Your task to perform on an android device: Open wifi settings Image 0: 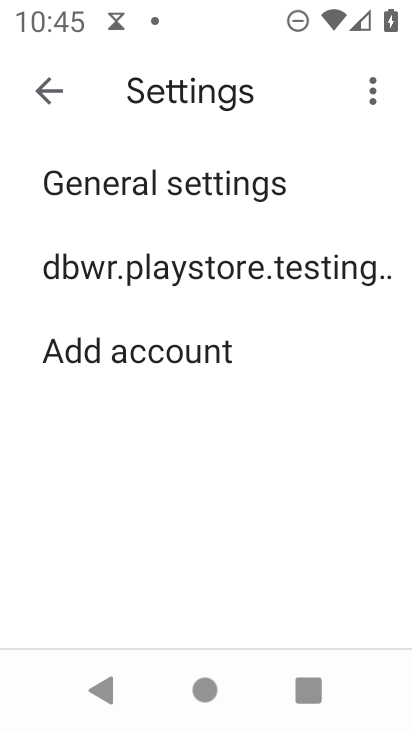
Step 0: press home button
Your task to perform on an android device: Open wifi settings Image 1: 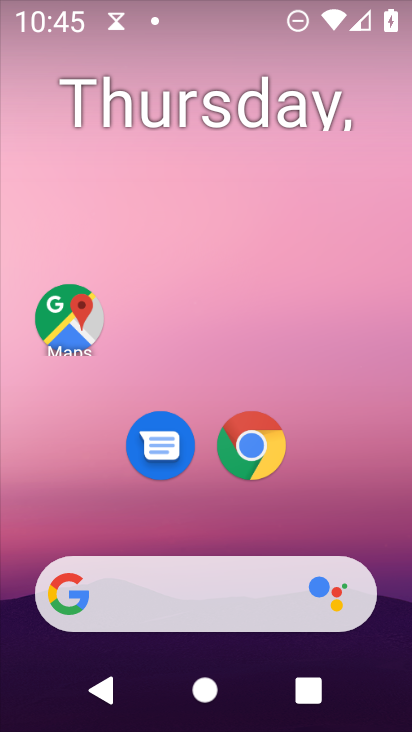
Step 1: drag from (233, 728) to (228, 0)
Your task to perform on an android device: Open wifi settings Image 2: 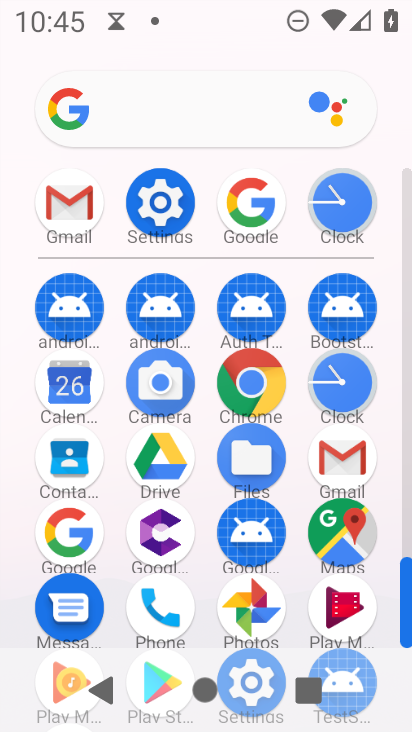
Step 2: click (153, 214)
Your task to perform on an android device: Open wifi settings Image 3: 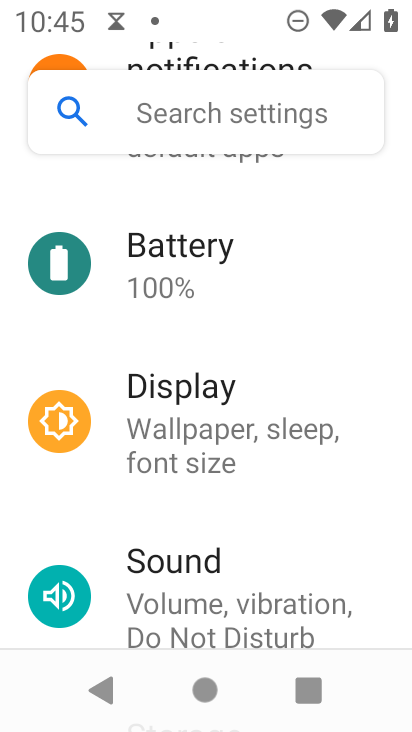
Step 3: drag from (323, 202) to (313, 586)
Your task to perform on an android device: Open wifi settings Image 4: 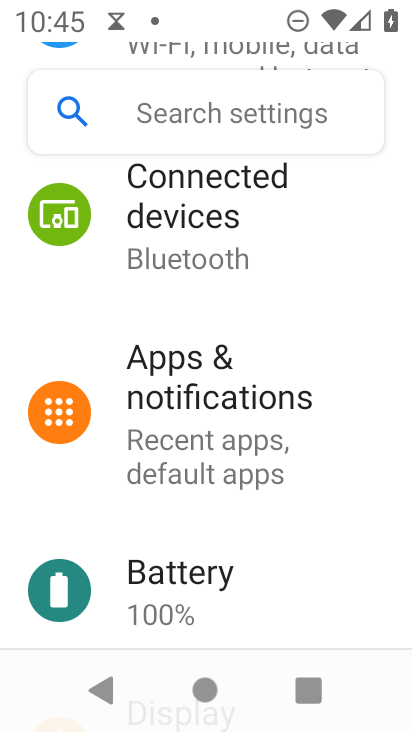
Step 4: drag from (330, 181) to (326, 567)
Your task to perform on an android device: Open wifi settings Image 5: 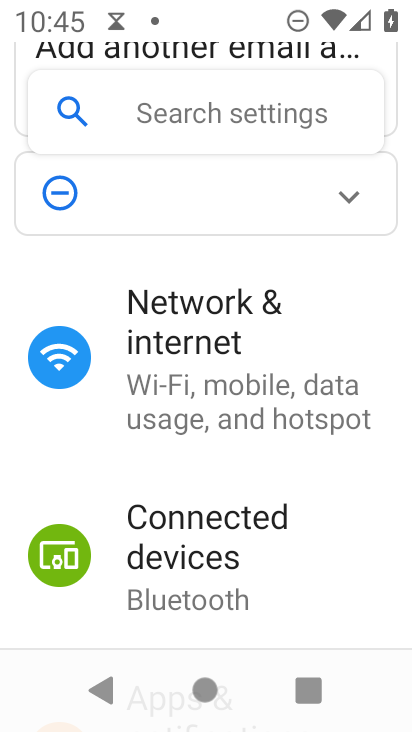
Step 5: click (187, 312)
Your task to perform on an android device: Open wifi settings Image 6: 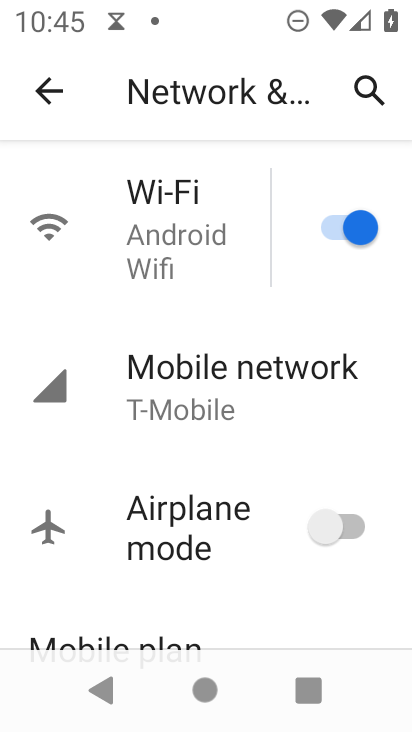
Step 6: click (160, 216)
Your task to perform on an android device: Open wifi settings Image 7: 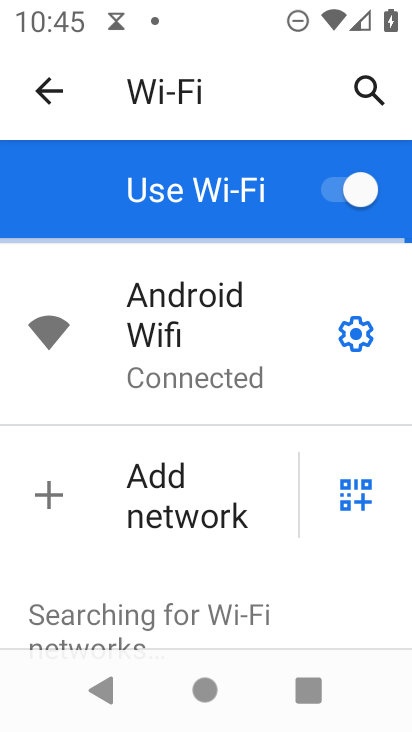
Step 7: task complete